Your task to perform on an android device: change alarm snooze length Image 0: 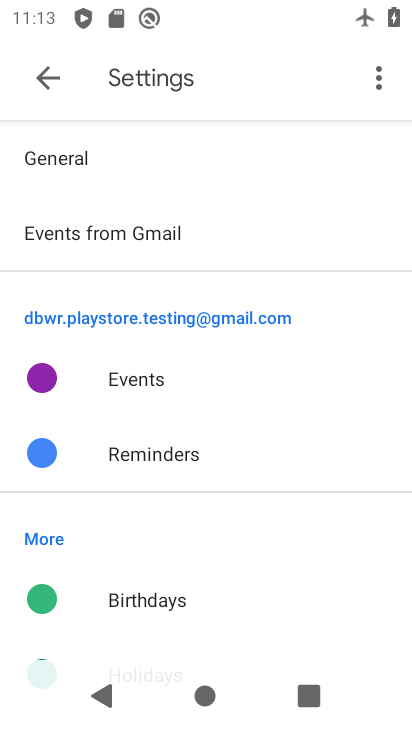
Step 0: press home button
Your task to perform on an android device: change alarm snooze length Image 1: 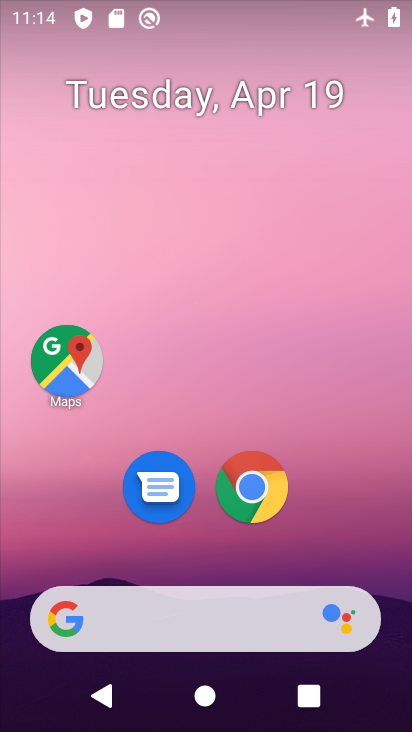
Step 1: drag from (349, 548) to (280, 34)
Your task to perform on an android device: change alarm snooze length Image 2: 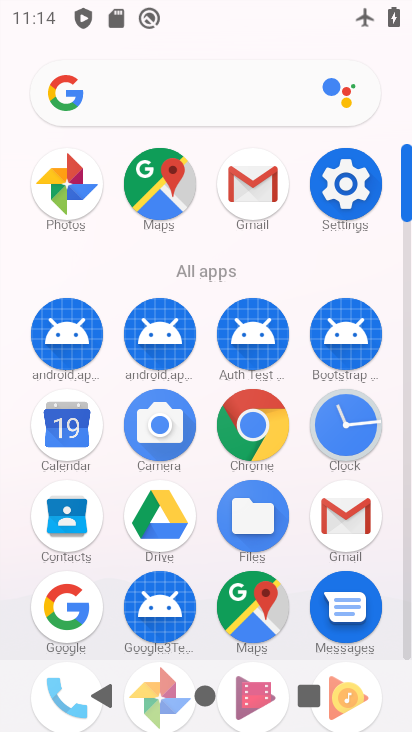
Step 2: click (354, 415)
Your task to perform on an android device: change alarm snooze length Image 3: 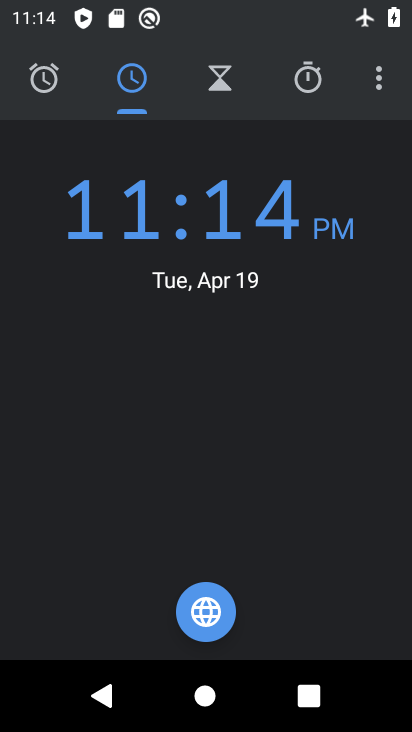
Step 3: click (385, 80)
Your task to perform on an android device: change alarm snooze length Image 4: 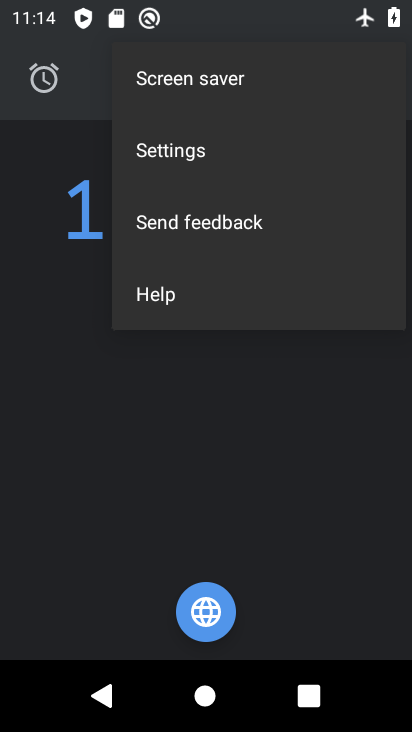
Step 4: click (292, 151)
Your task to perform on an android device: change alarm snooze length Image 5: 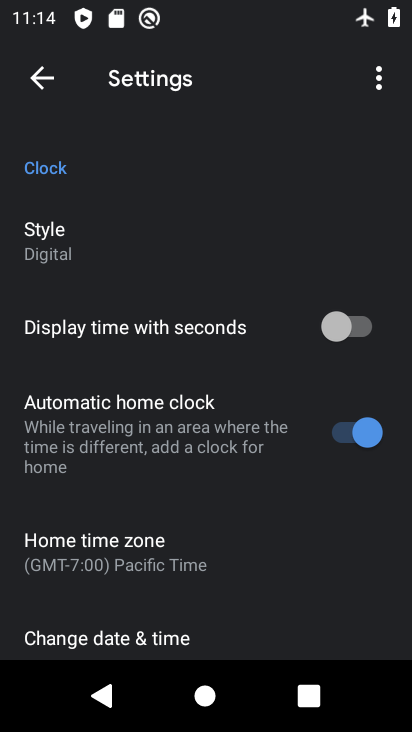
Step 5: drag from (183, 538) to (218, 214)
Your task to perform on an android device: change alarm snooze length Image 6: 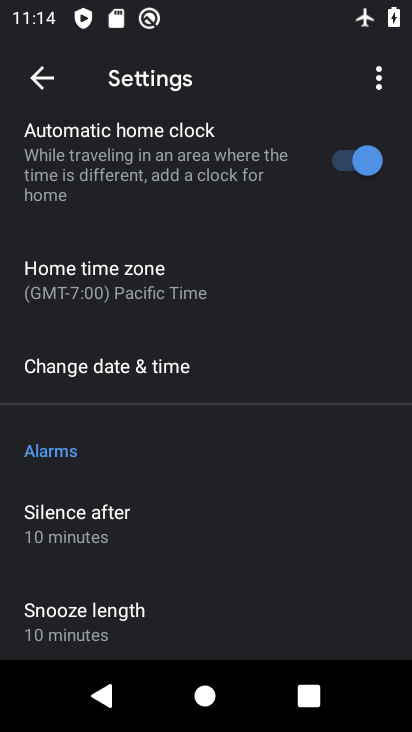
Step 6: click (196, 628)
Your task to perform on an android device: change alarm snooze length Image 7: 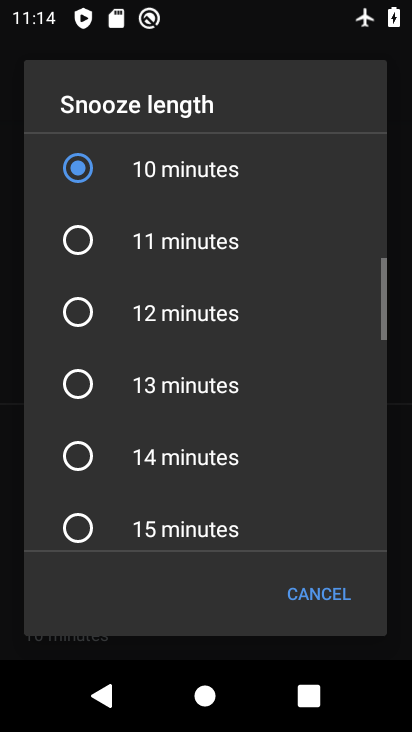
Step 7: click (197, 391)
Your task to perform on an android device: change alarm snooze length Image 8: 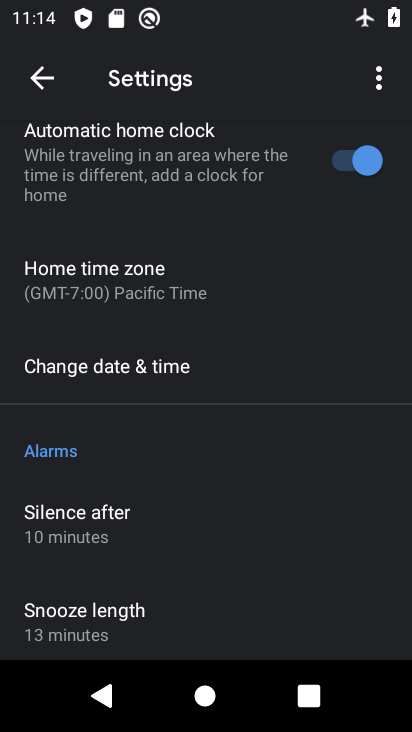
Step 8: task complete